Your task to perform on an android device: Search for Italian restaurants on Maps Image 0: 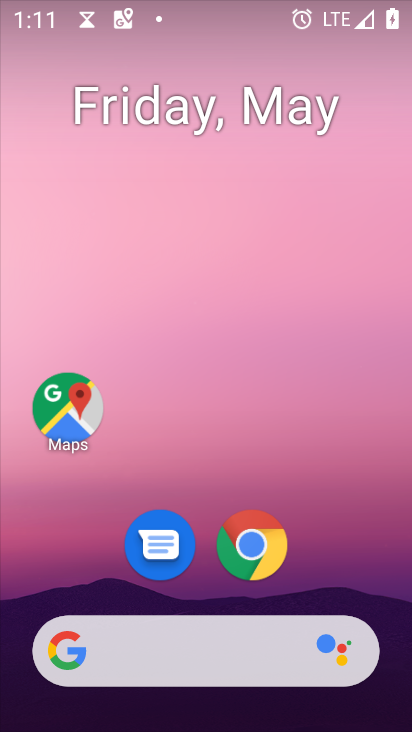
Step 0: click (57, 397)
Your task to perform on an android device: Search for Italian restaurants on Maps Image 1: 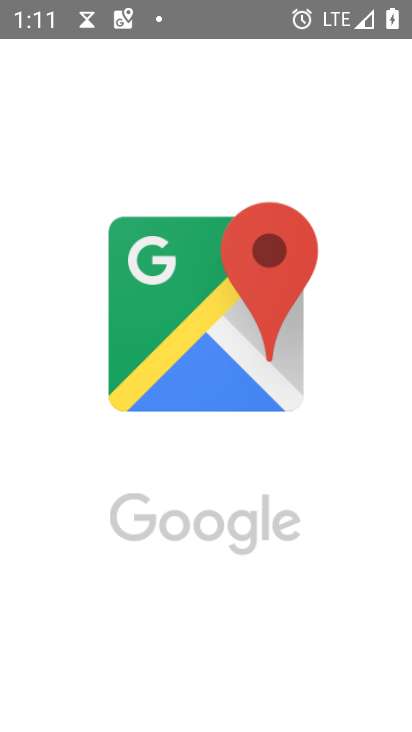
Step 1: click (57, 397)
Your task to perform on an android device: Search for Italian restaurants on Maps Image 2: 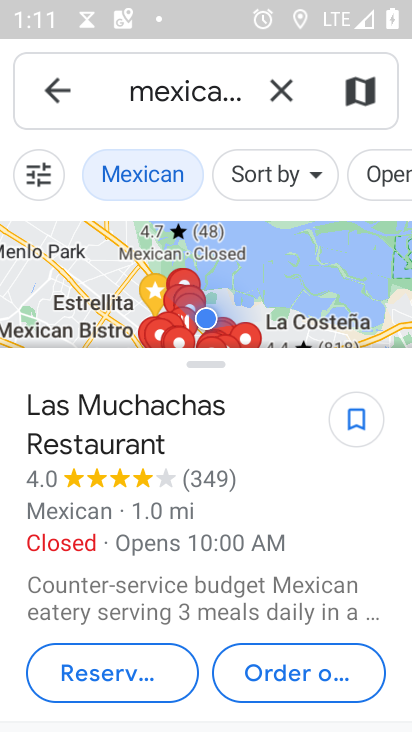
Step 2: click (285, 87)
Your task to perform on an android device: Search for Italian restaurants on Maps Image 3: 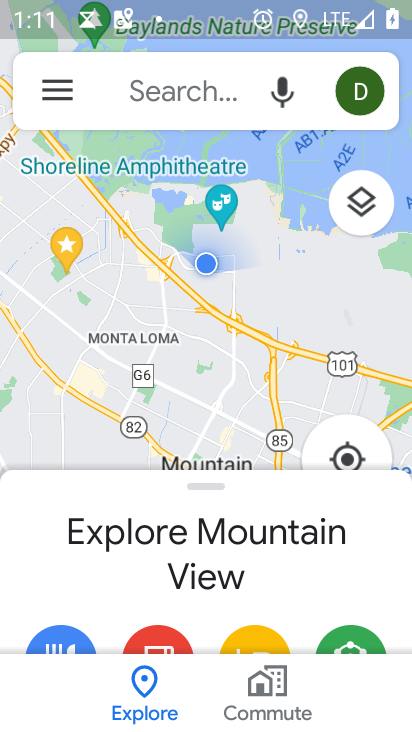
Step 3: click (174, 84)
Your task to perform on an android device: Search for Italian restaurants on Maps Image 4: 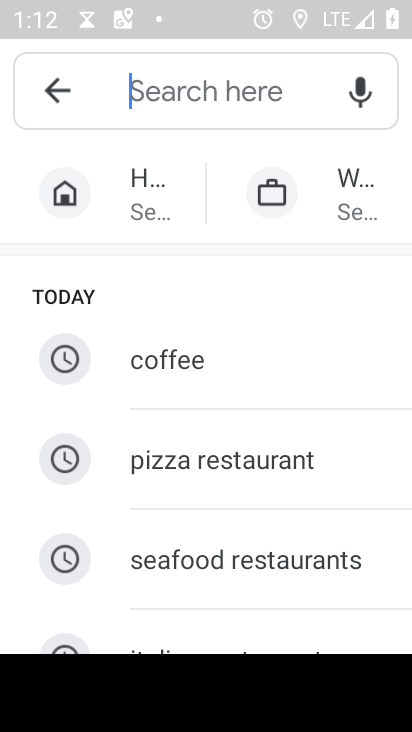
Step 4: drag from (257, 528) to (261, 341)
Your task to perform on an android device: Search for Italian restaurants on Maps Image 5: 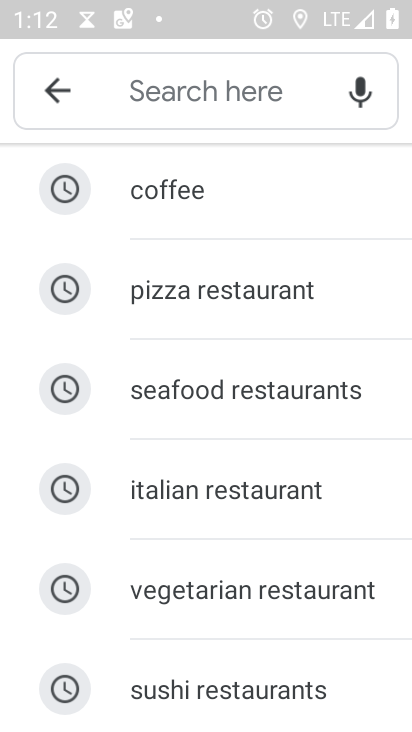
Step 5: click (229, 479)
Your task to perform on an android device: Search for Italian restaurants on Maps Image 6: 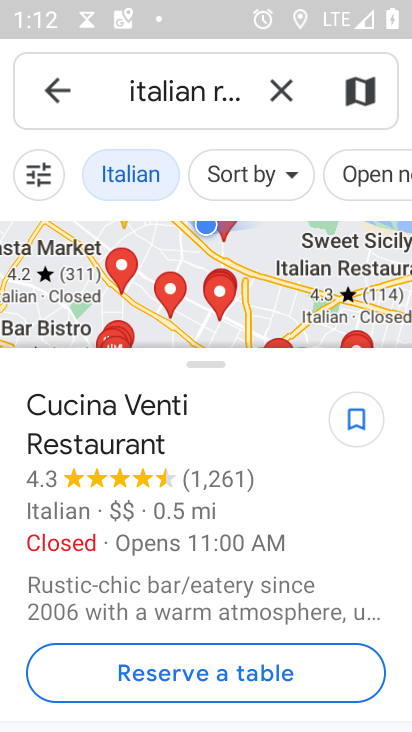
Step 6: task complete